Your task to perform on an android device: Open accessibility settings Image 0: 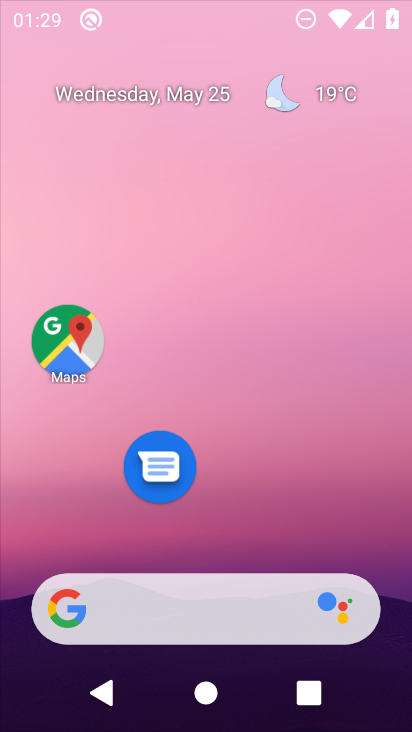
Step 0: click (235, 115)
Your task to perform on an android device: Open accessibility settings Image 1: 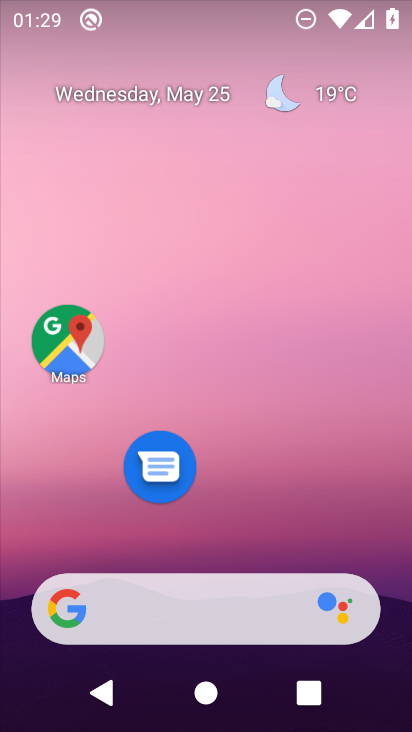
Step 1: drag from (225, 553) to (274, 3)
Your task to perform on an android device: Open accessibility settings Image 2: 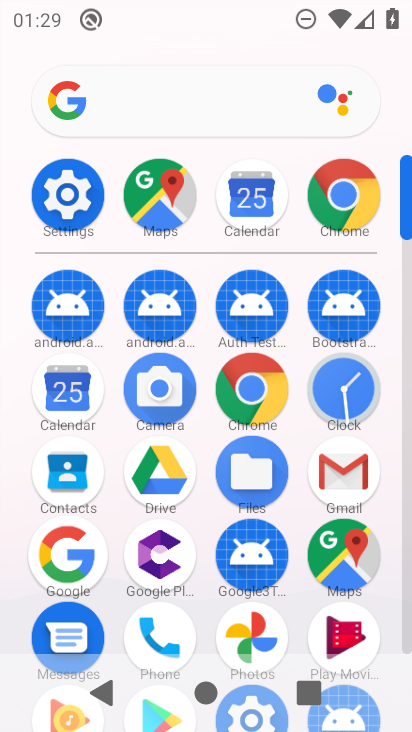
Step 2: click (49, 213)
Your task to perform on an android device: Open accessibility settings Image 3: 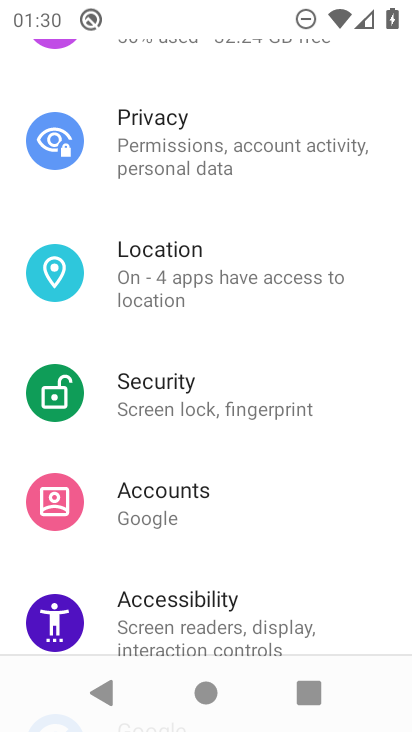
Step 3: drag from (213, 193) to (263, 590)
Your task to perform on an android device: Open accessibility settings Image 4: 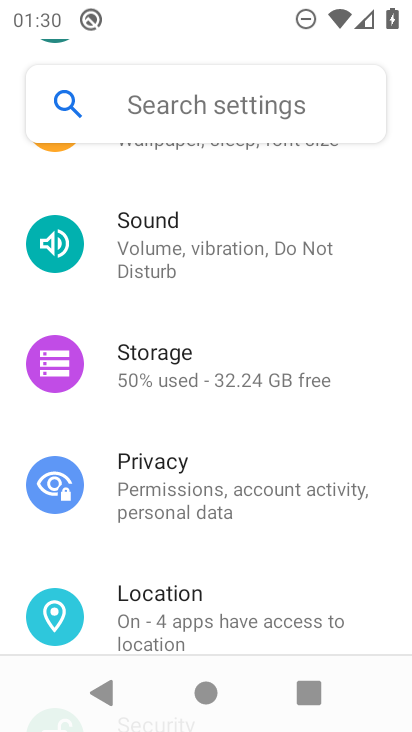
Step 4: drag from (249, 521) to (350, 2)
Your task to perform on an android device: Open accessibility settings Image 5: 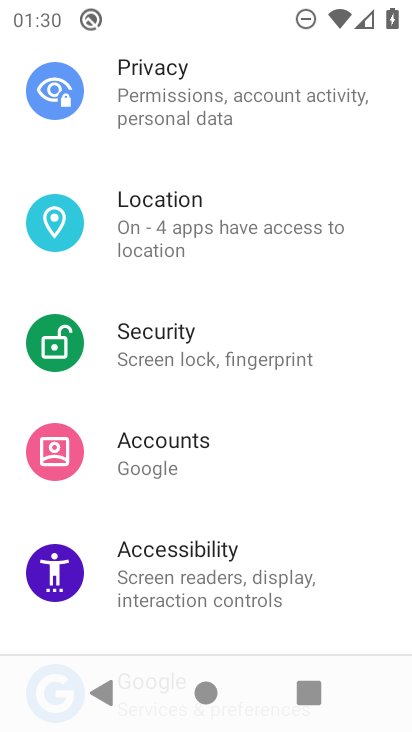
Step 5: click (207, 558)
Your task to perform on an android device: Open accessibility settings Image 6: 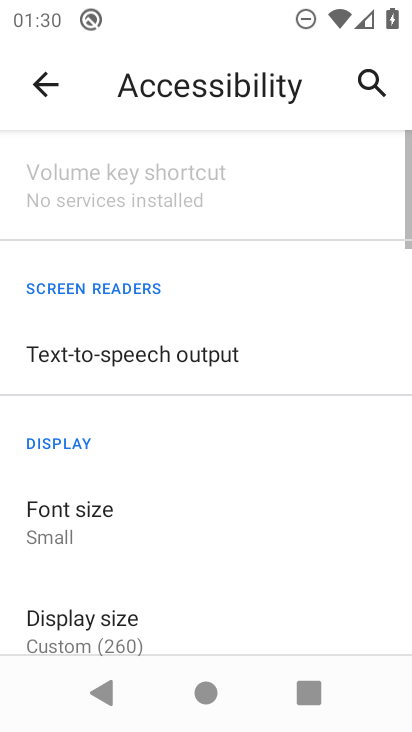
Step 6: task complete